Your task to perform on an android device: When is my next meeting? Image 0: 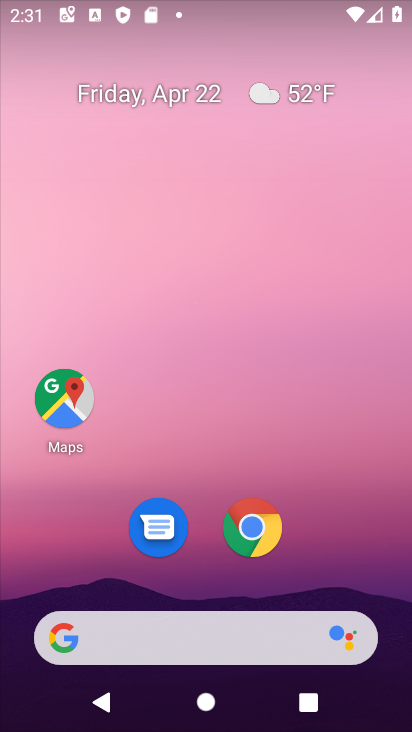
Step 0: drag from (281, 424) to (222, 73)
Your task to perform on an android device: When is my next meeting? Image 1: 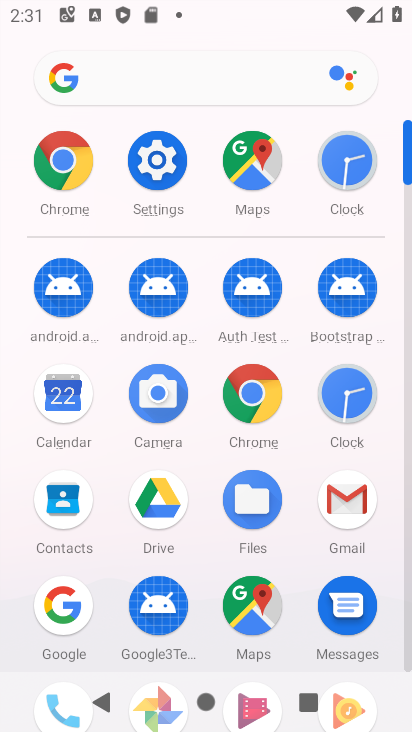
Step 1: click (70, 394)
Your task to perform on an android device: When is my next meeting? Image 2: 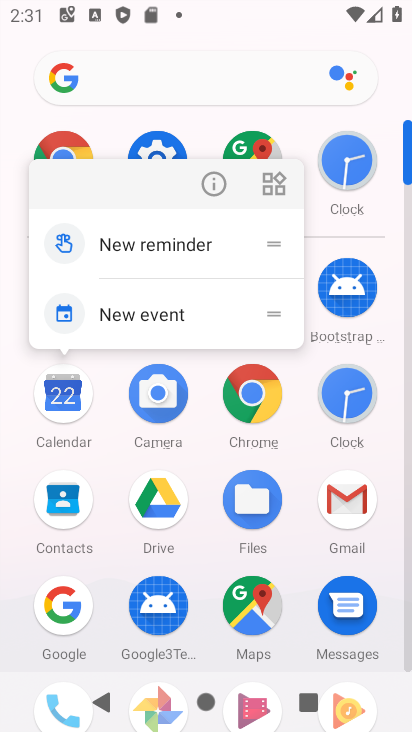
Step 2: click (78, 400)
Your task to perform on an android device: When is my next meeting? Image 3: 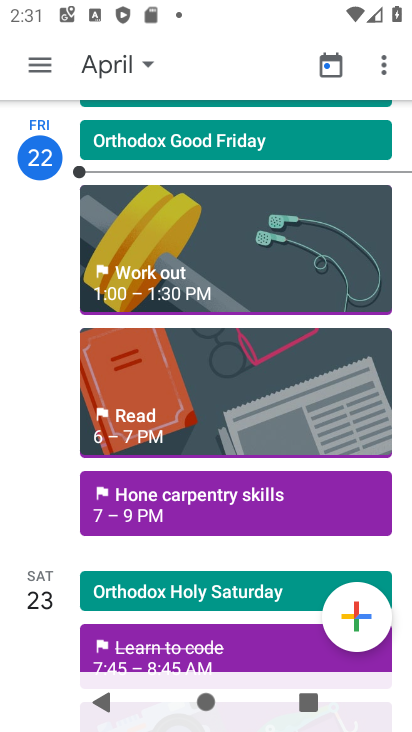
Step 3: click (104, 60)
Your task to perform on an android device: When is my next meeting? Image 4: 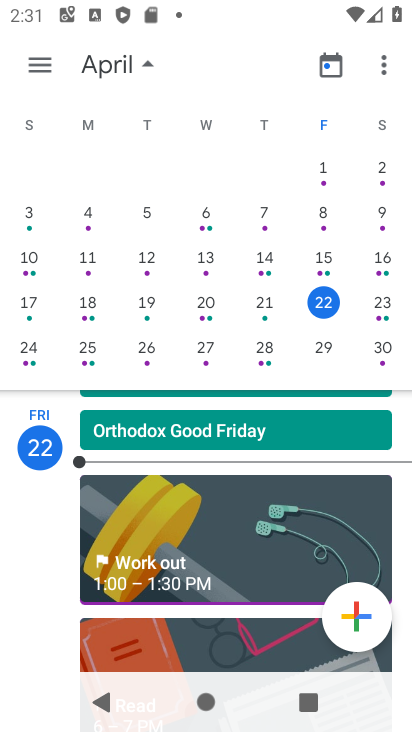
Step 4: task complete